Your task to perform on an android device: Do I have any events this weekend? Image 0: 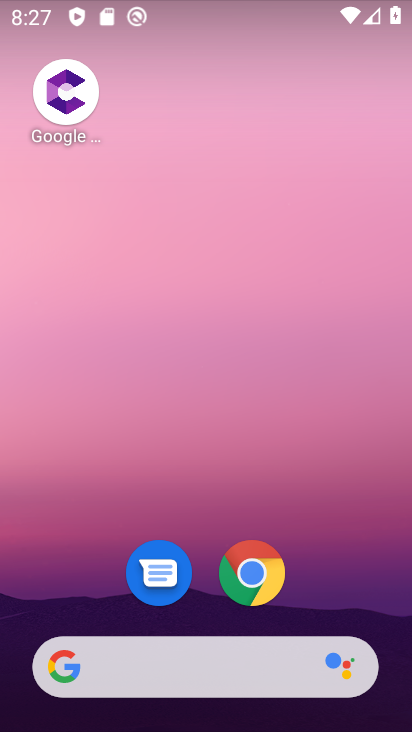
Step 0: click (166, 15)
Your task to perform on an android device: Do I have any events this weekend? Image 1: 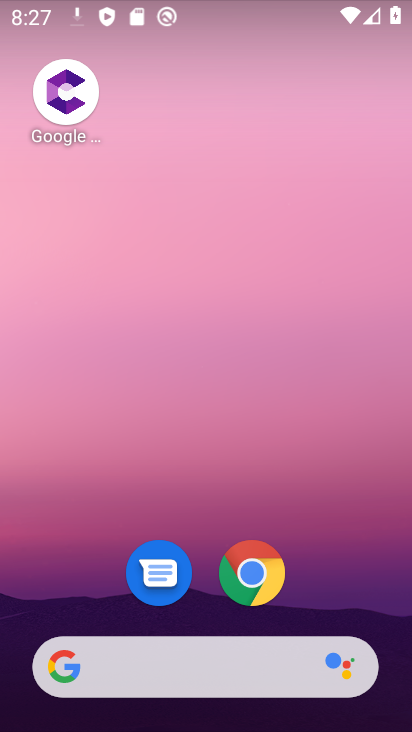
Step 1: drag from (325, 590) to (240, 92)
Your task to perform on an android device: Do I have any events this weekend? Image 2: 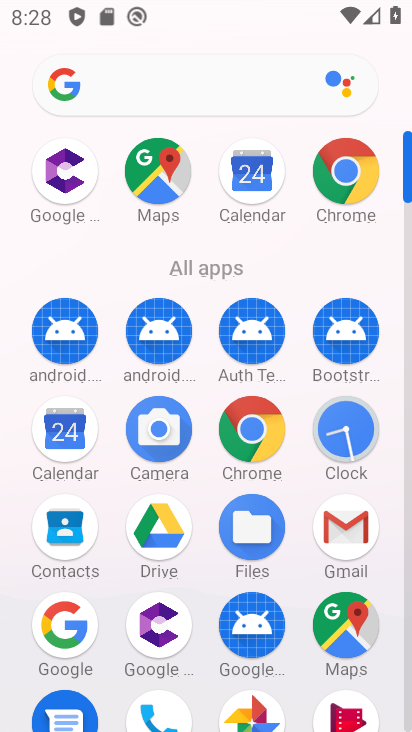
Step 2: click (70, 426)
Your task to perform on an android device: Do I have any events this weekend? Image 3: 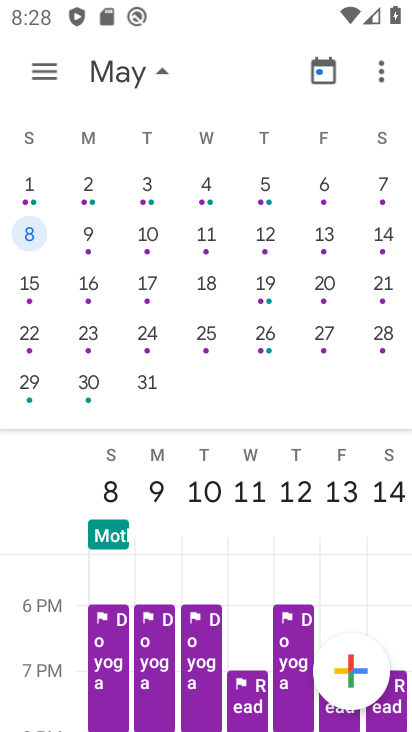
Step 3: click (158, 71)
Your task to perform on an android device: Do I have any events this weekend? Image 4: 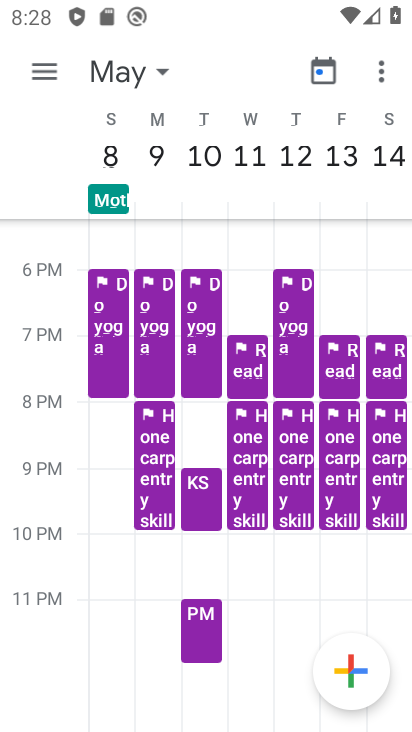
Step 4: click (158, 71)
Your task to perform on an android device: Do I have any events this weekend? Image 5: 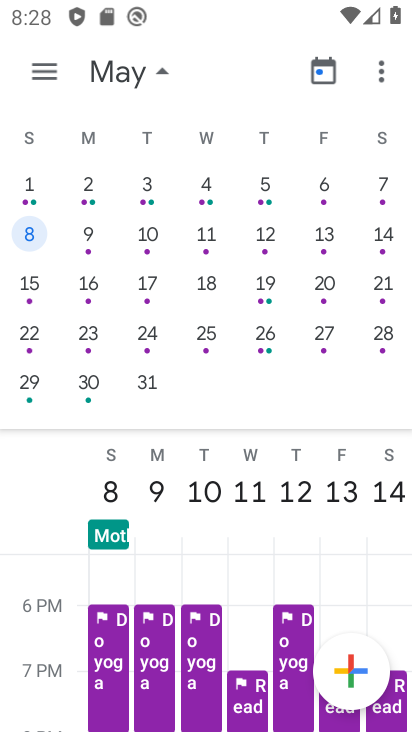
Step 5: drag from (25, 284) to (410, 330)
Your task to perform on an android device: Do I have any events this weekend? Image 6: 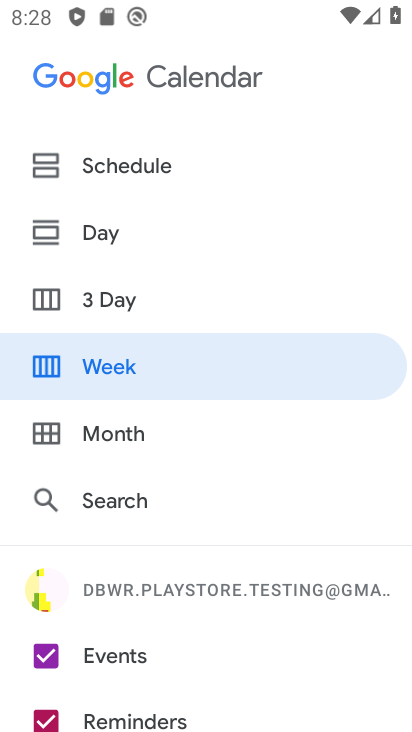
Step 6: click (105, 359)
Your task to perform on an android device: Do I have any events this weekend? Image 7: 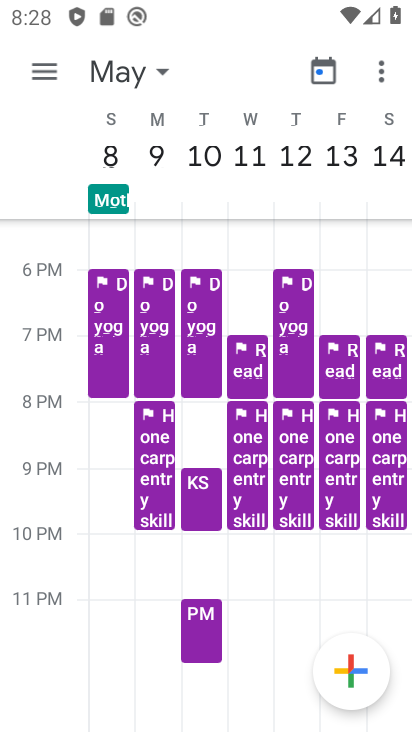
Step 7: click (160, 72)
Your task to perform on an android device: Do I have any events this weekend? Image 8: 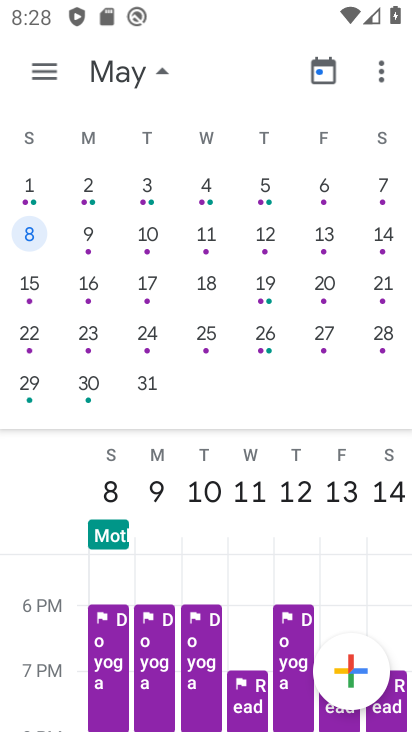
Step 8: task complete